Your task to perform on an android device: toggle show notifications on the lock screen Image 0: 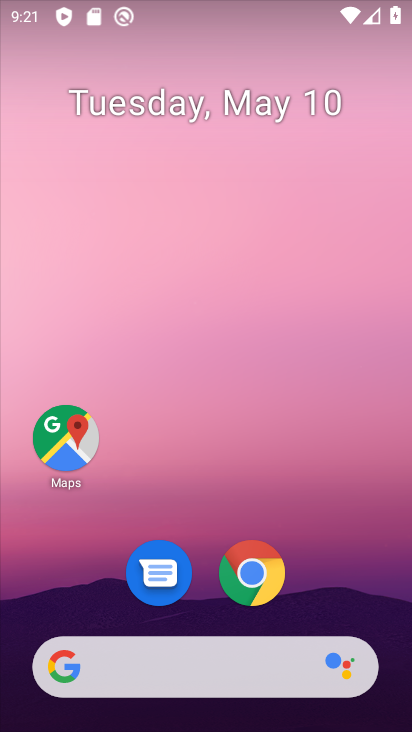
Step 0: drag from (333, 528) to (232, 32)
Your task to perform on an android device: toggle show notifications on the lock screen Image 1: 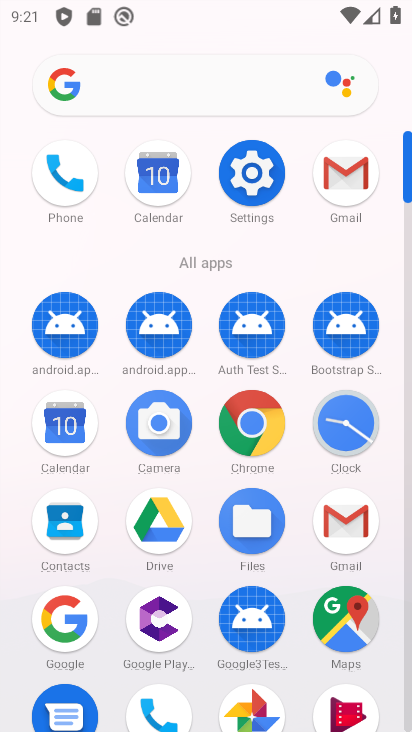
Step 1: click (251, 178)
Your task to perform on an android device: toggle show notifications on the lock screen Image 2: 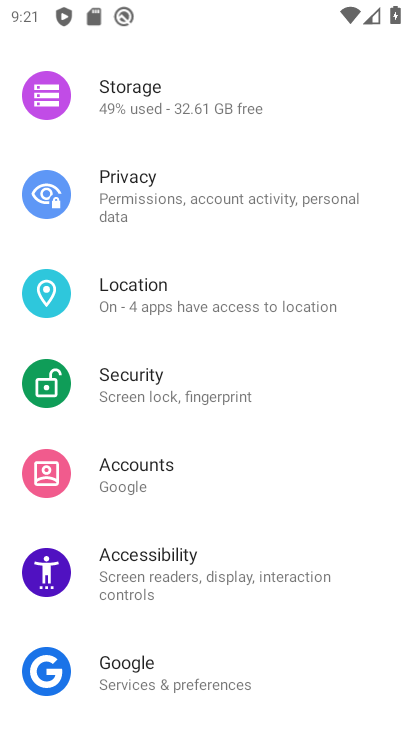
Step 2: drag from (181, 511) to (153, 554)
Your task to perform on an android device: toggle show notifications on the lock screen Image 3: 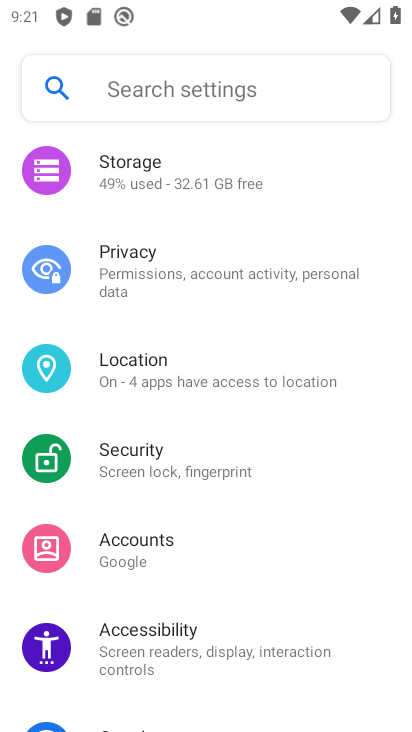
Step 3: drag from (202, 225) to (218, 558)
Your task to perform on an android device: toggle show notifications on the lock screen Image 4: 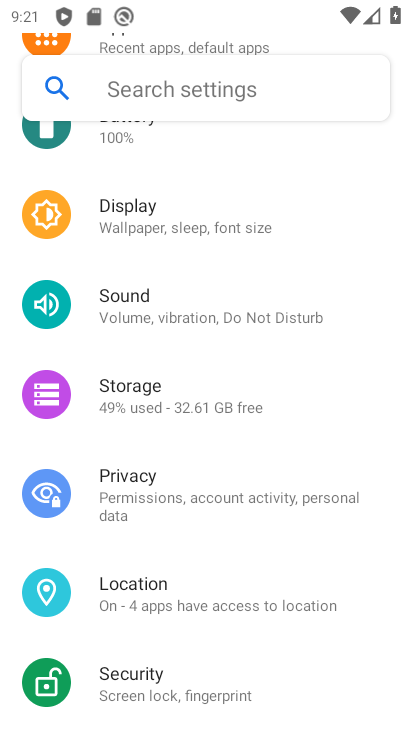
Step 4: drag from (173, 258) to (217, 628)
Your task to perform on an android device: toggle show notifications on the lock screen Image 5: 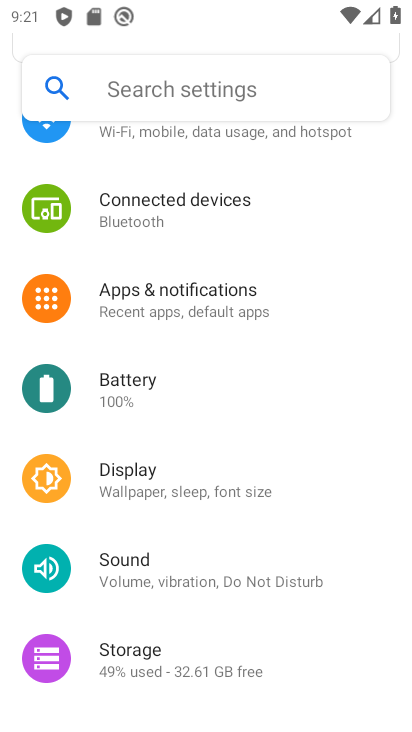
Step 5: click (181, 284)
Your task to perform on an android device: toggle show notifications on the lock screen Image 6: 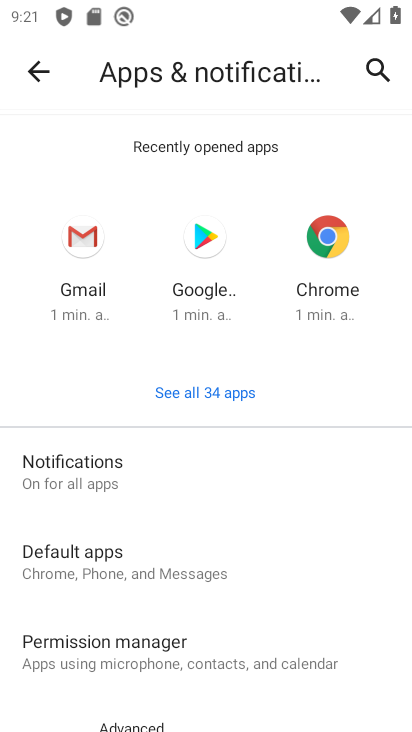
Step 6: drag from (150, 526) to (100, 367)
Your task to perform on an android device: toggle show notifications on the lock screen Image 7: 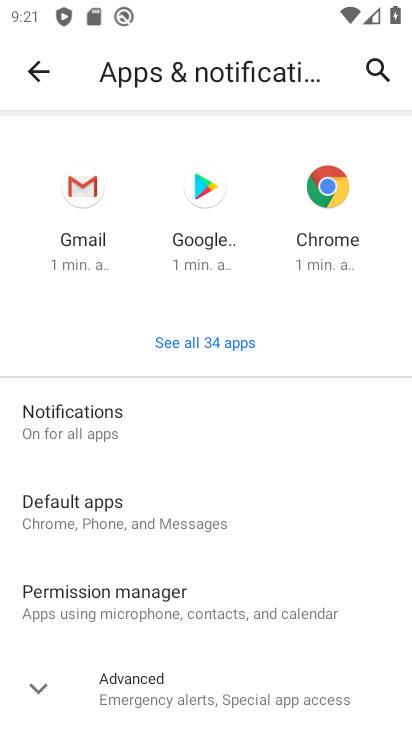
Step 7: click (85, 414)
Your task to perform on an android device: toggle show notifications on the lock screen Image 8: 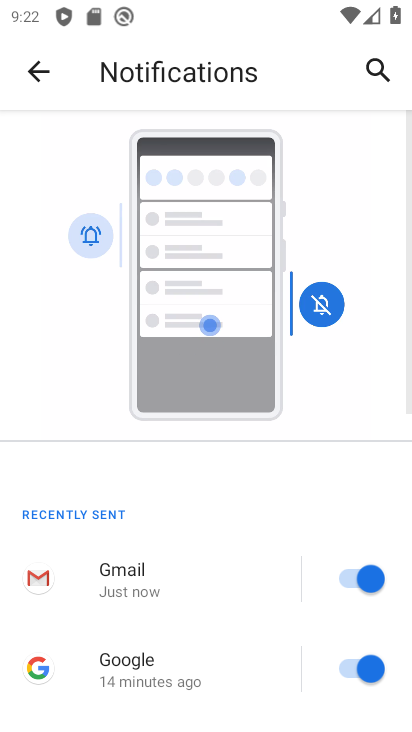
Step 8: drag from (235, 542) to (168, 196)
Your task to perform on an android device: toggle show notifications on the lock screen Image 9: 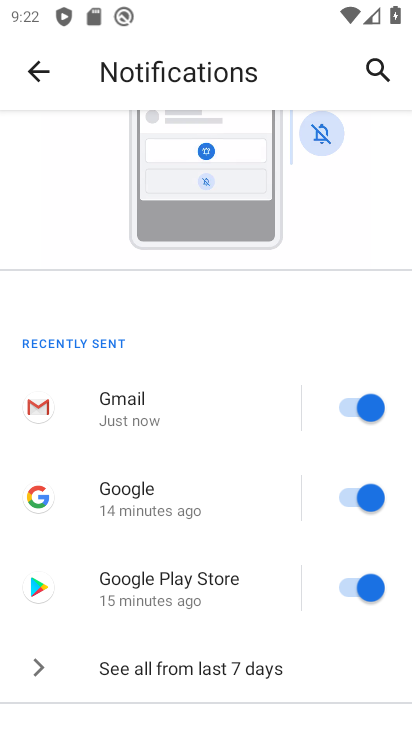
Step 9: drag from (227, 532) to (178, 318)
Your task to perform on an android device: toggle show notifications on the lock screen Image 10: 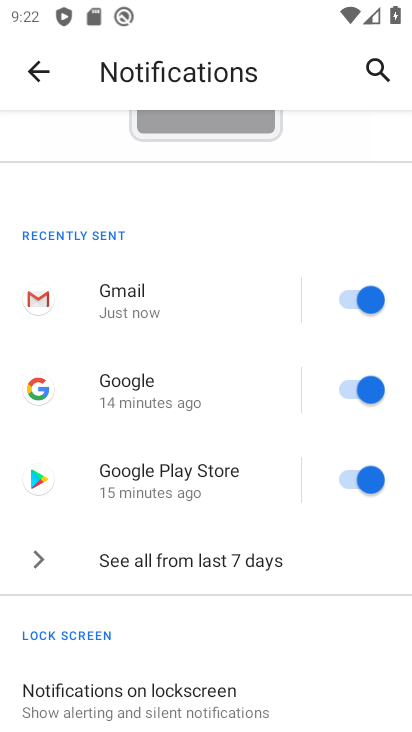
Step 10: drag from (190, 659) to (143, 430)
Your task to perform on an android device: toggle show notifications on the lock screen Image 11: 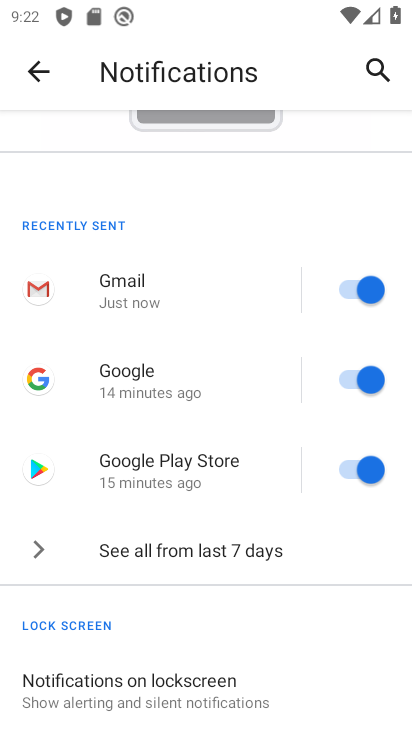
Step 11: click (145, 677)
Your task to perform on an android device: toggle show notifications on the lock screen Image 12: 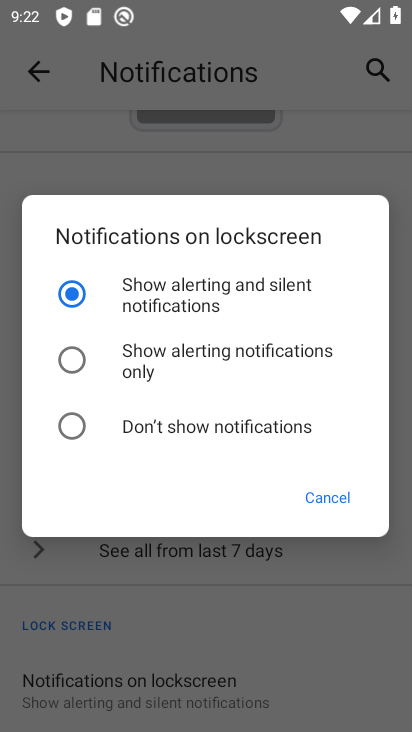
Step 12: click (70, 421)
Your task to perform on an android device: toggle show notifications on the lock screen Image 13: 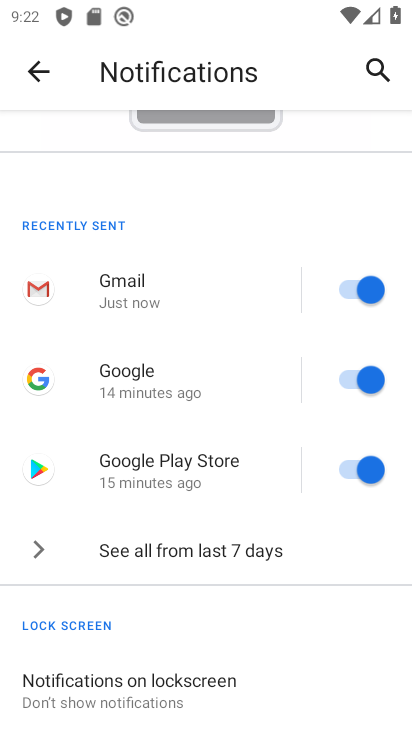
Step 13: task complete